Your task to perform on an android device: see tabs open on other devices in the chrome app Image 0: 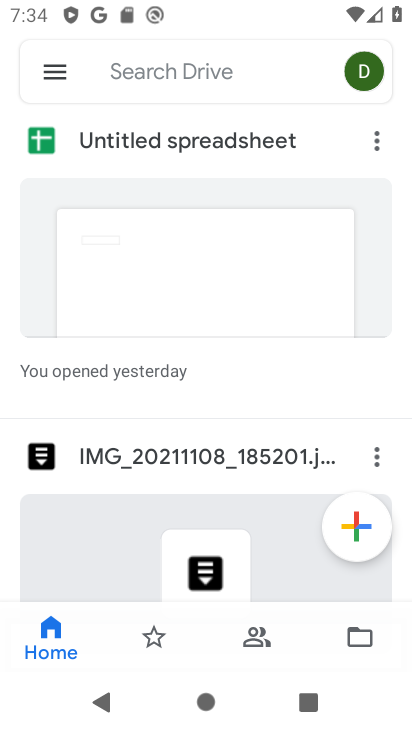
Step 0: press home button
Your task to perform on an android device: see tabs open on other devices in the chrome app Image 1: 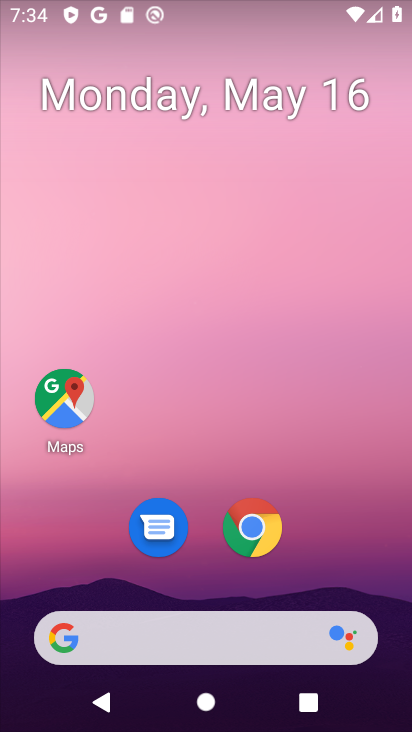
Step 1: drag from (327, 556) to (315, 163)
Your task to perform on an android device: see tabs open on other devices in the chrome app Image 2: 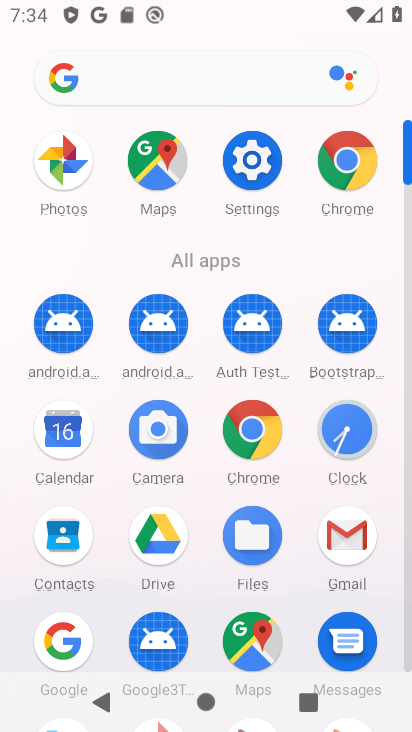
Step 2: click (339, 163)
Your task to perform on an android device: see tabs open on other devices in the chrome app Image 3: 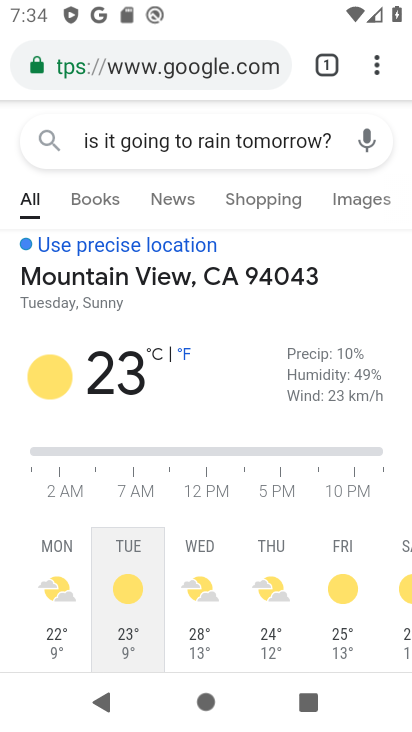
Step 3: click (388, 66)
Your task to perform on an android device: see tabs open on other devices in the chrome app Image 4: 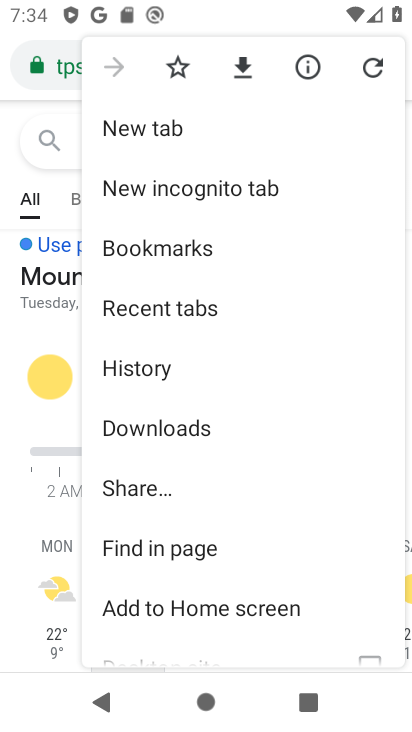
Step 4: click (158, 245)
Your task to perform on an android device: see tabs open on other devices in the chrome app Image 5: 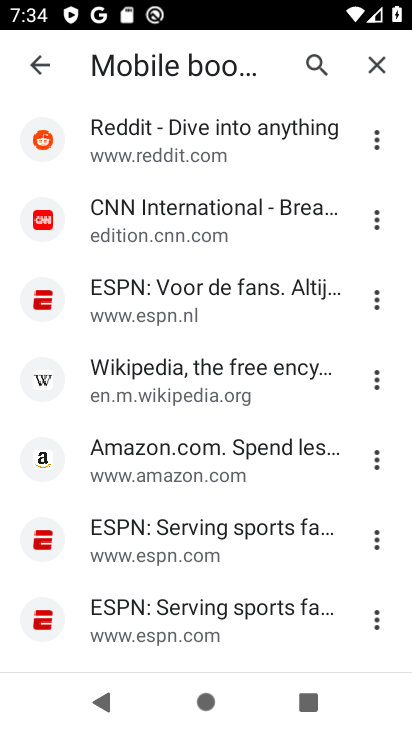
Step 5: click (35, 57)
Your task to perform on an android device: see tabs open on other devices in the chrome app Image 6: 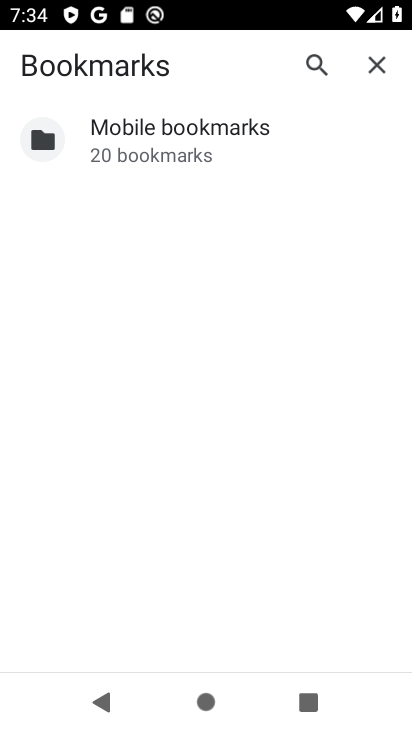
Step 6: click (384, 69)
Your task to perform on an android device: see tabs open on other devices in the chrome app Image 7: 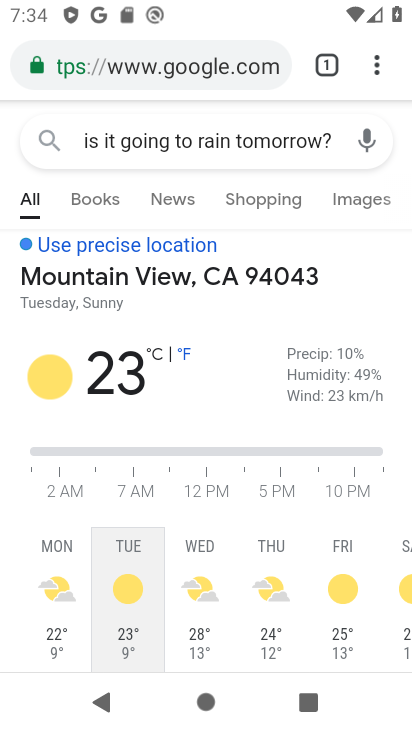
Step 7: click (366, 62)
Your task to perform on an android device: see tabs open on other devices in the chrome app Image 8: 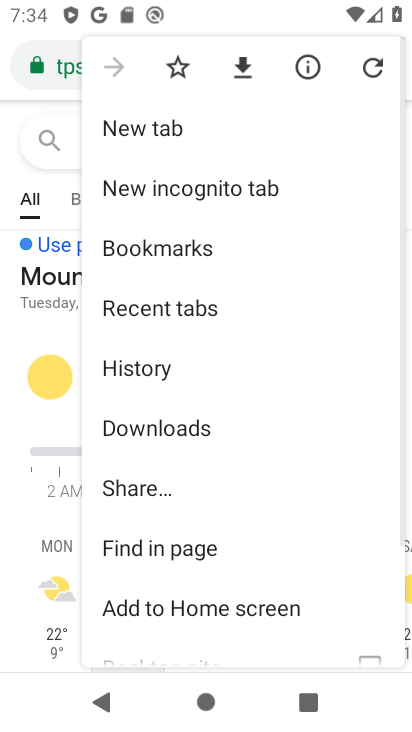
Step 8: click (170, 380)
Your task to perform on an android device: see tabs open on other devices in the chrome app Image 9: 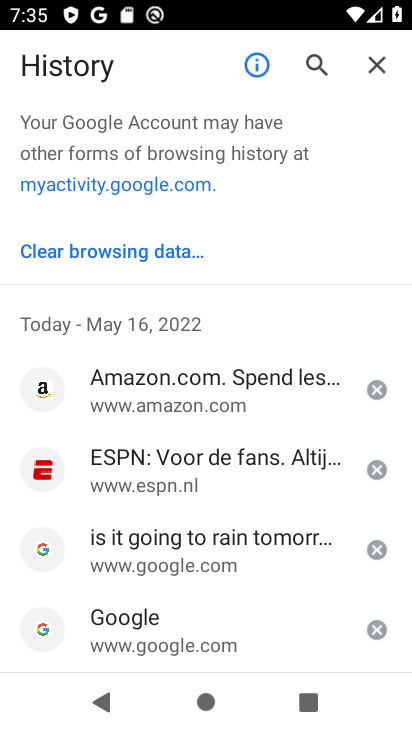
Step 9: task complete